Your task to perform on an android device: toggle improve location accuracy Image 0: 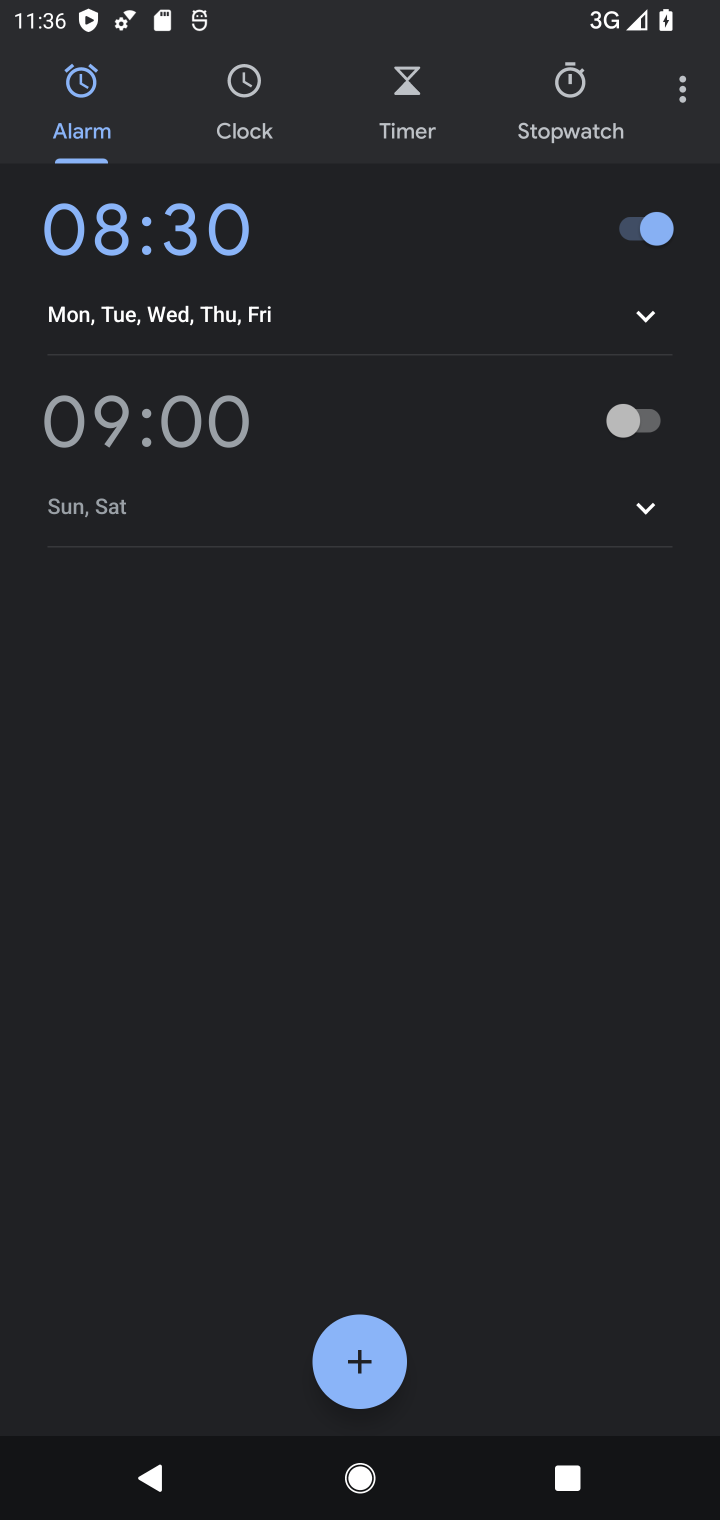
Step 0: press home button
Your task to perform on an android device: toggle improve location accuracy Image 1: 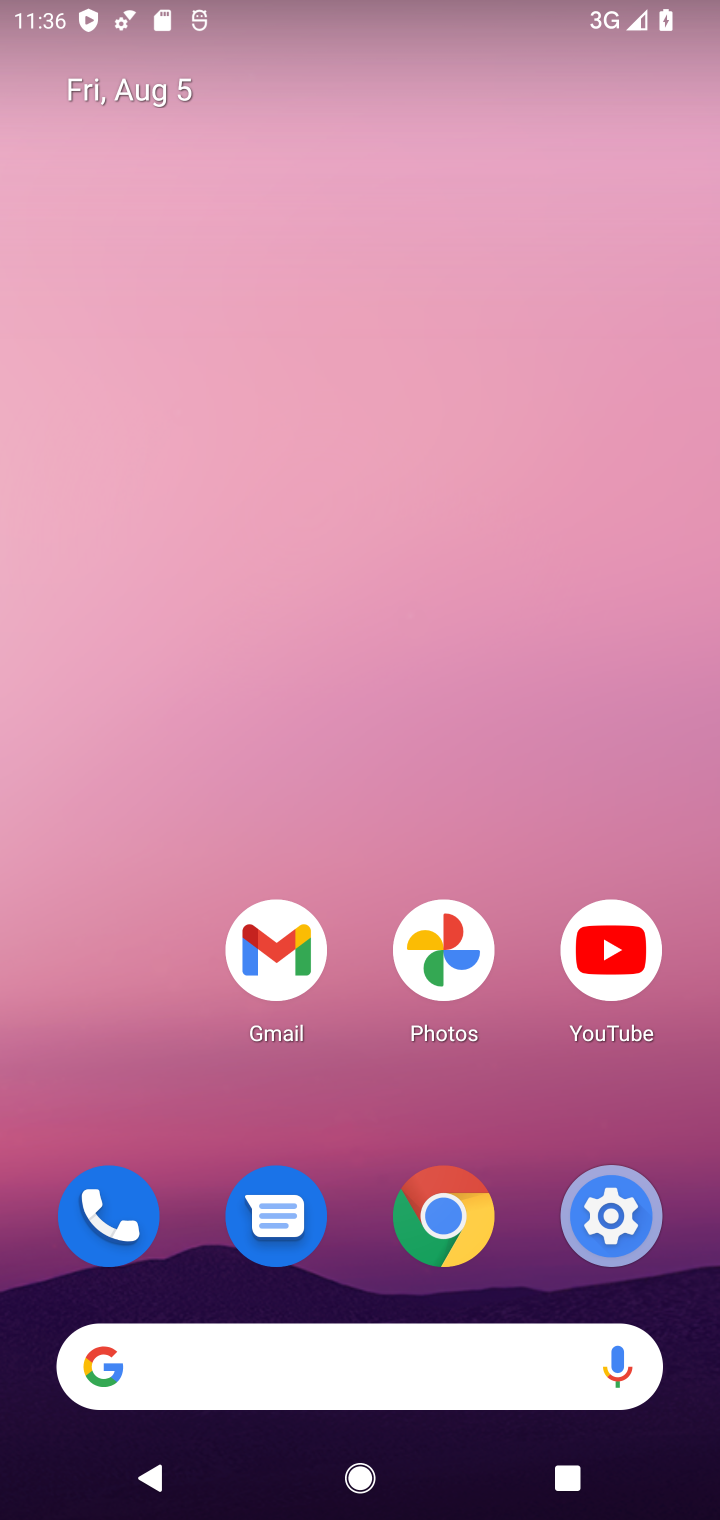
Step 1: click (637, 1209)
Your task to perform on an android device: toggle improve location accuracy Image 2: 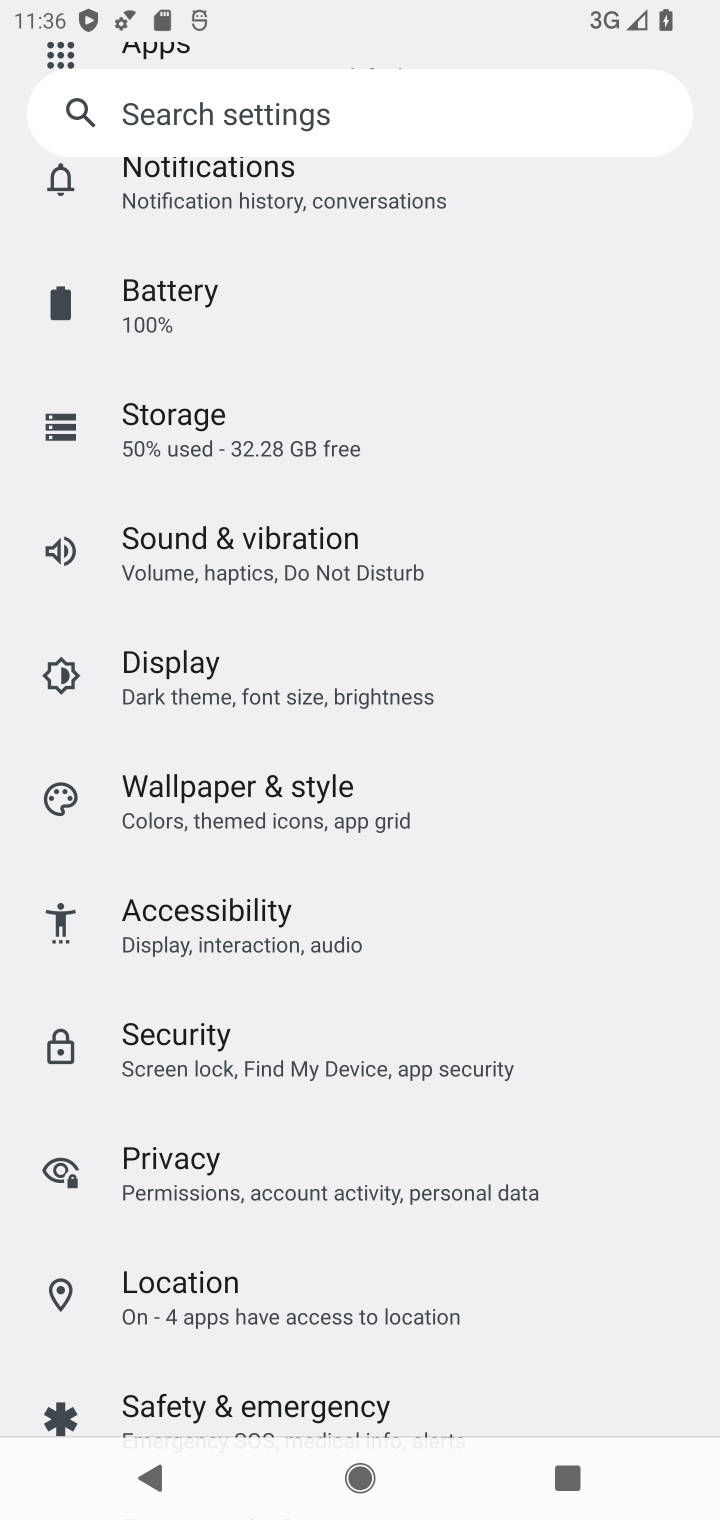
Step 2: click (264, 1278)
Your task to perform on an android device: toggle improve location accuracy Image 3: 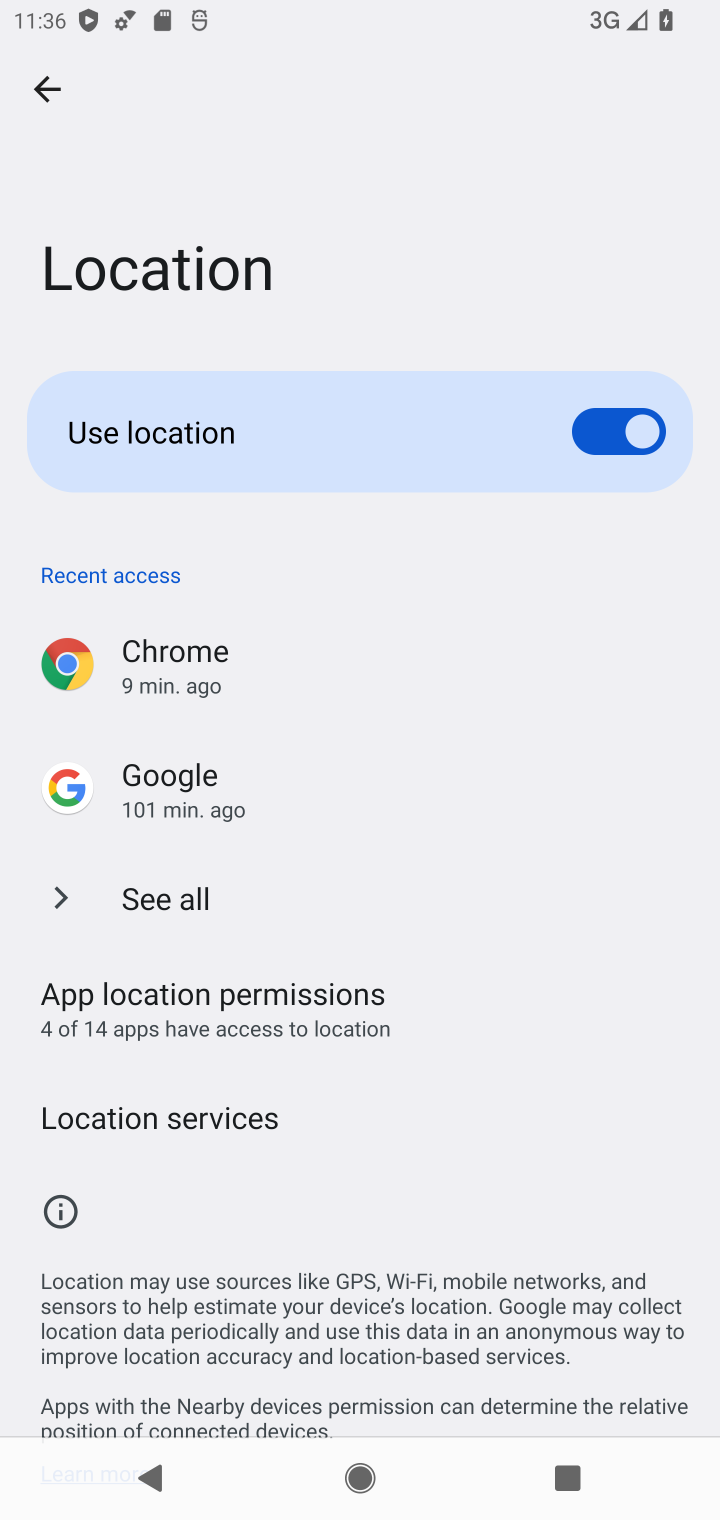
Step 3: click (261, 1115)
Your task to perform on an android device: toggle improve location accuracy Image 4: 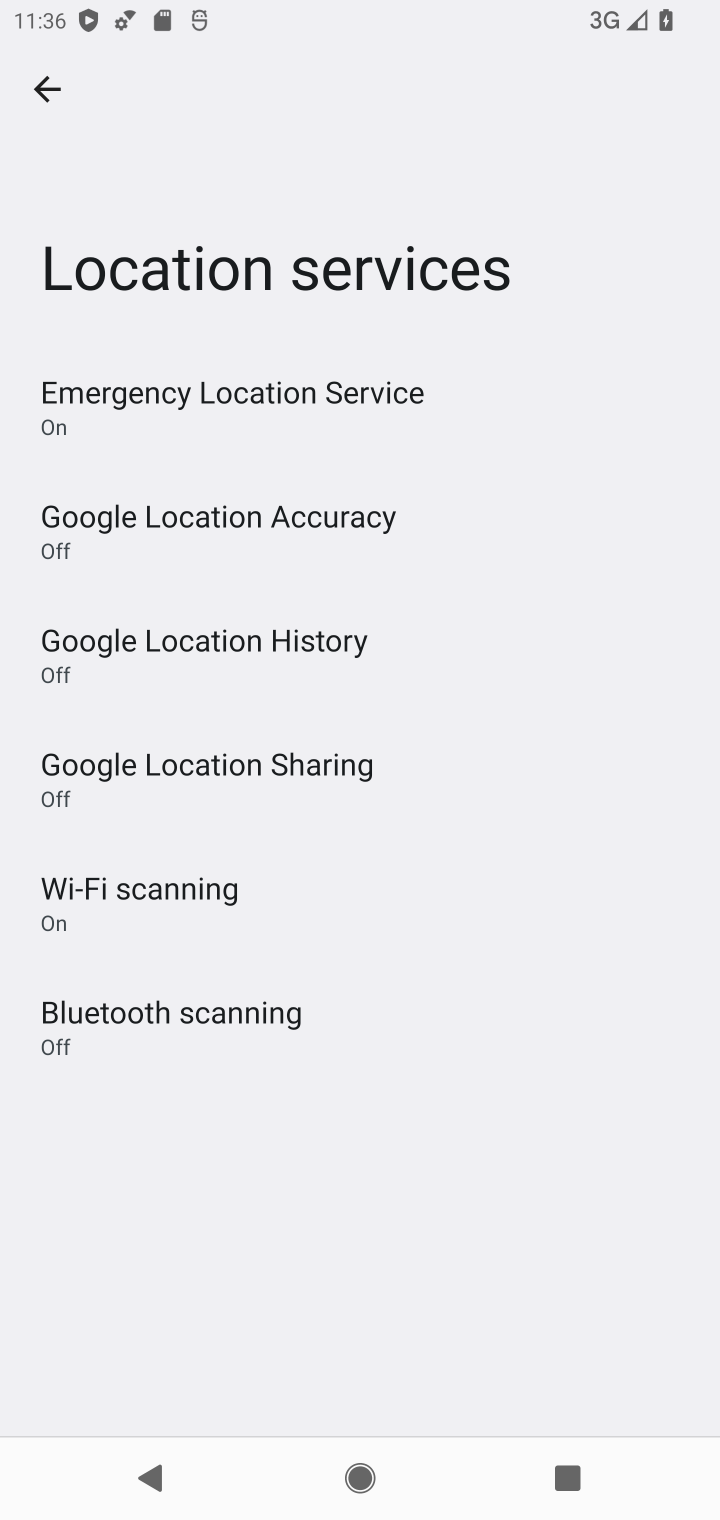
Step 4: click (296, 517)
Your task to perform on an android device: toggle improve location accuracy Image 5: 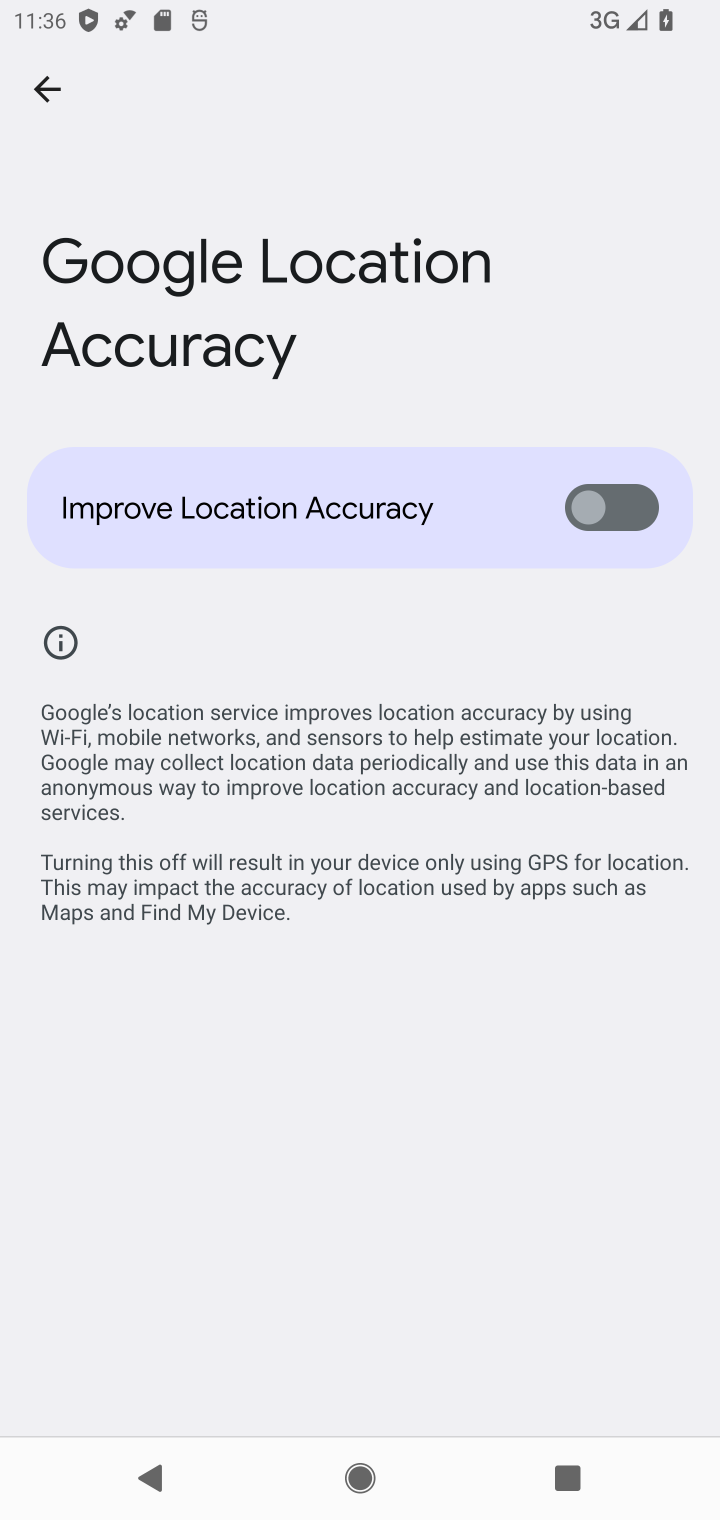
Step 5: click (615, 509)
Your task to perform on an android device: toggle improve location accuracy Image 6: 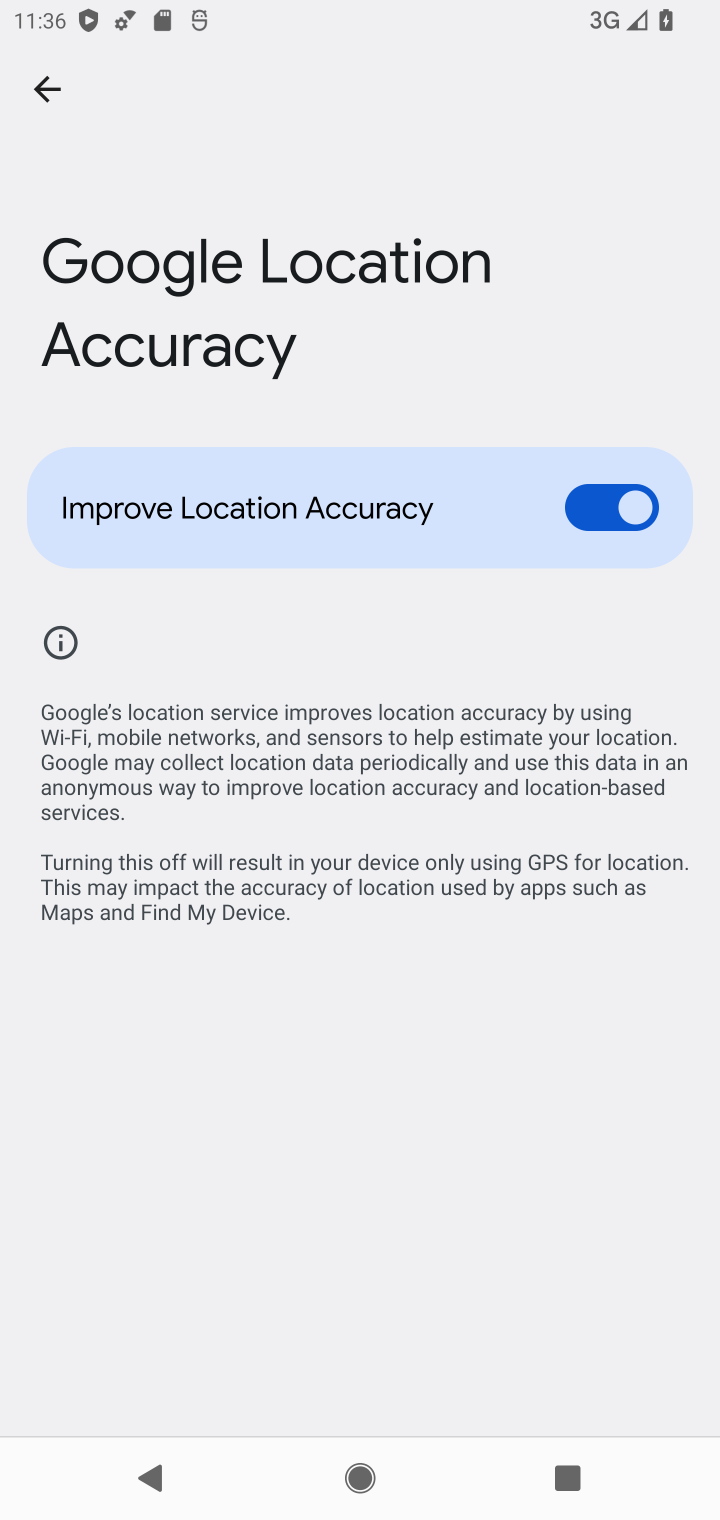
Step 6: task complete